Your task to perform on an android device: turn off smart reply in the gmail app Image 0: 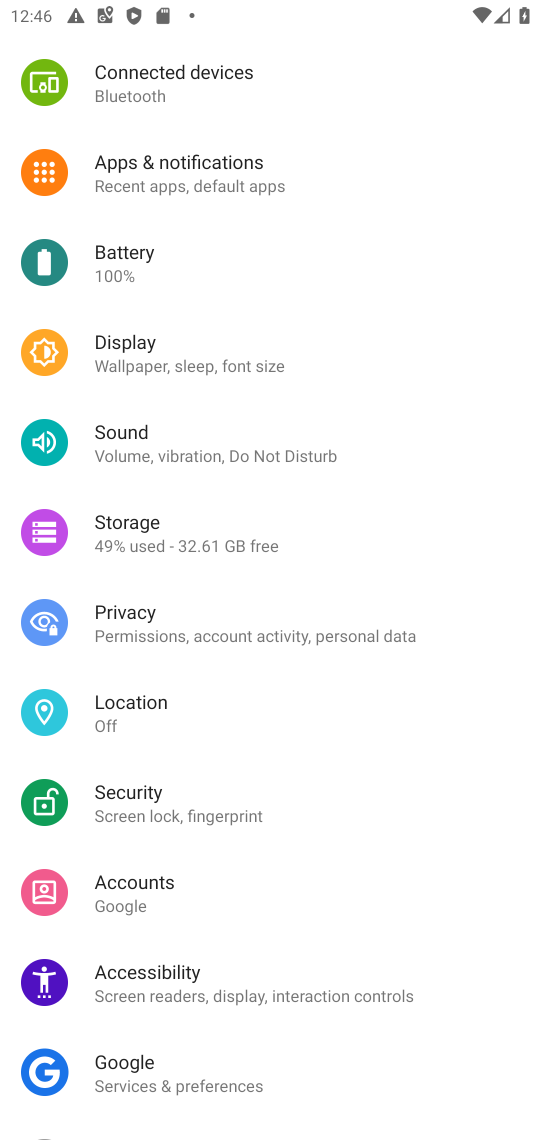
Step 0: press home button
Your task to perform on an android device: turn off smart reply in the gmail app Image 1: 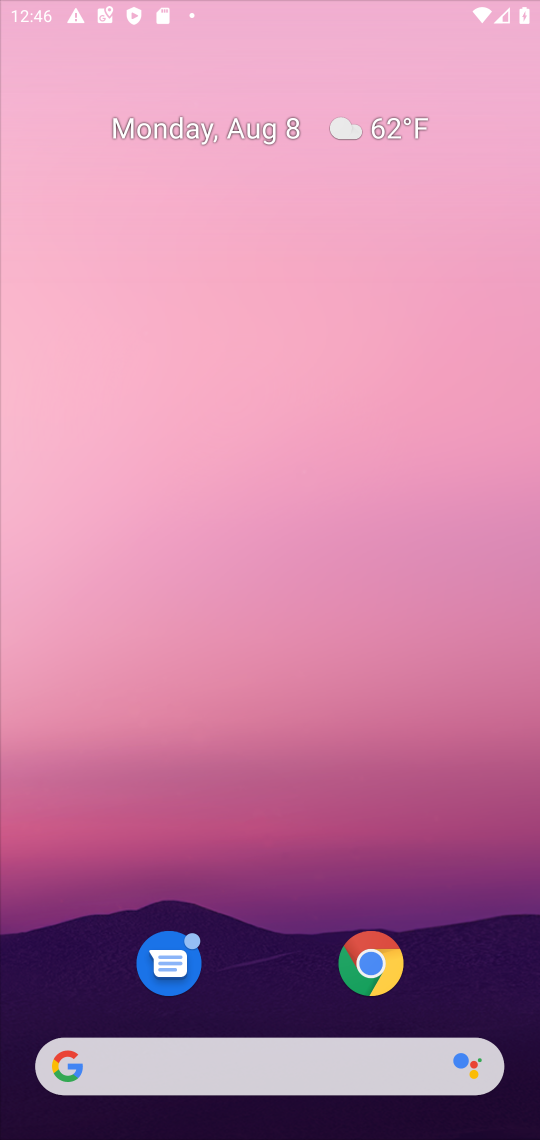
Step 1: drag from (525, 1001) to (269, 48)
Your task to perform on an android device: turn off smart reply in the gmail app Image 2: 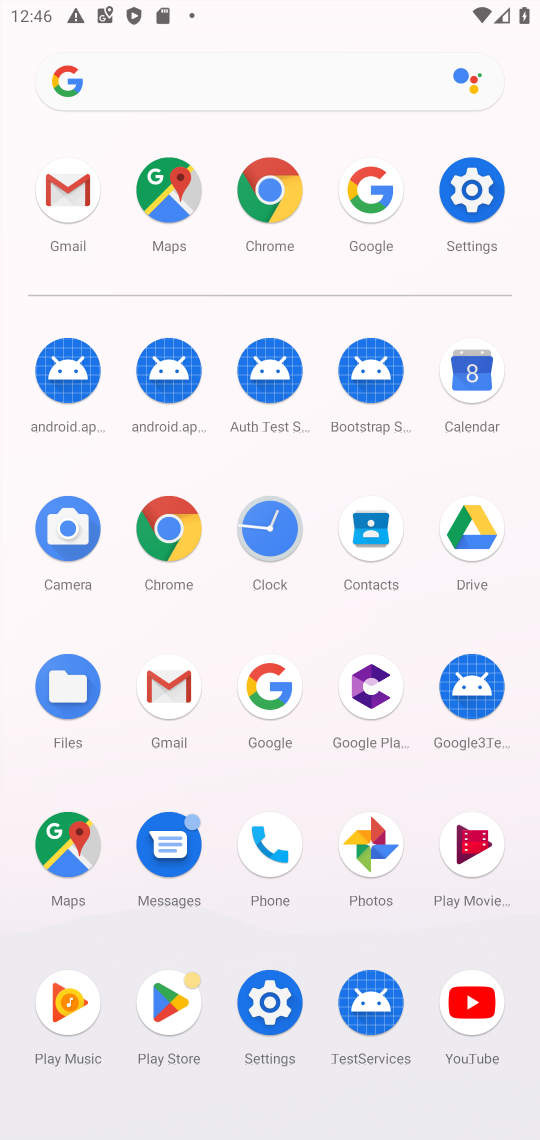
Step 2: click (179, 713)
Your task to perform on an android device: turn off smart reply in the gmail app Image 3: 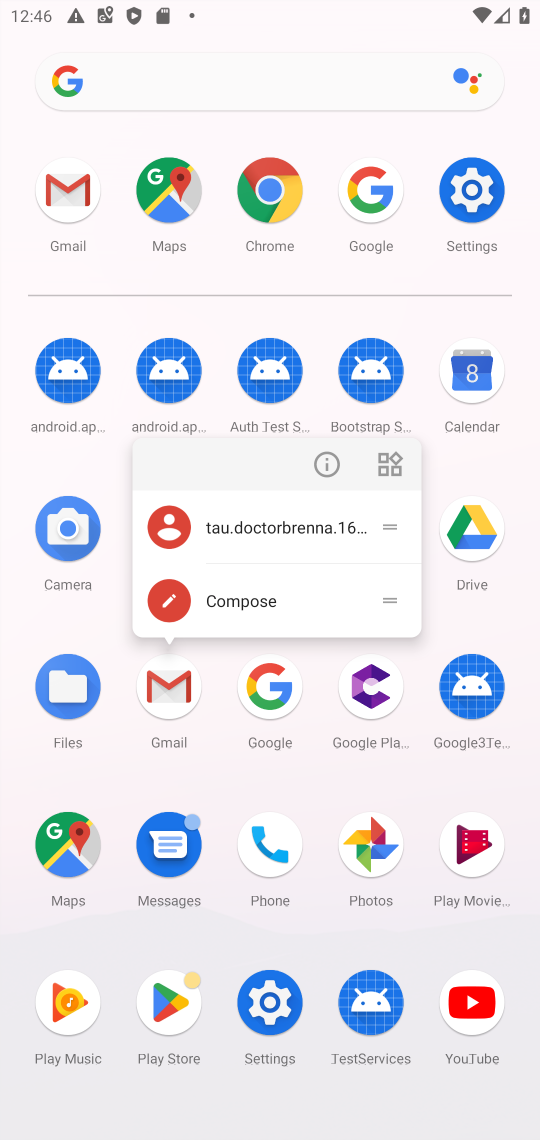
Step 3: click (179, 713)
Your task to perform on an android device: turn off smart reply in the gmail app Image 4: 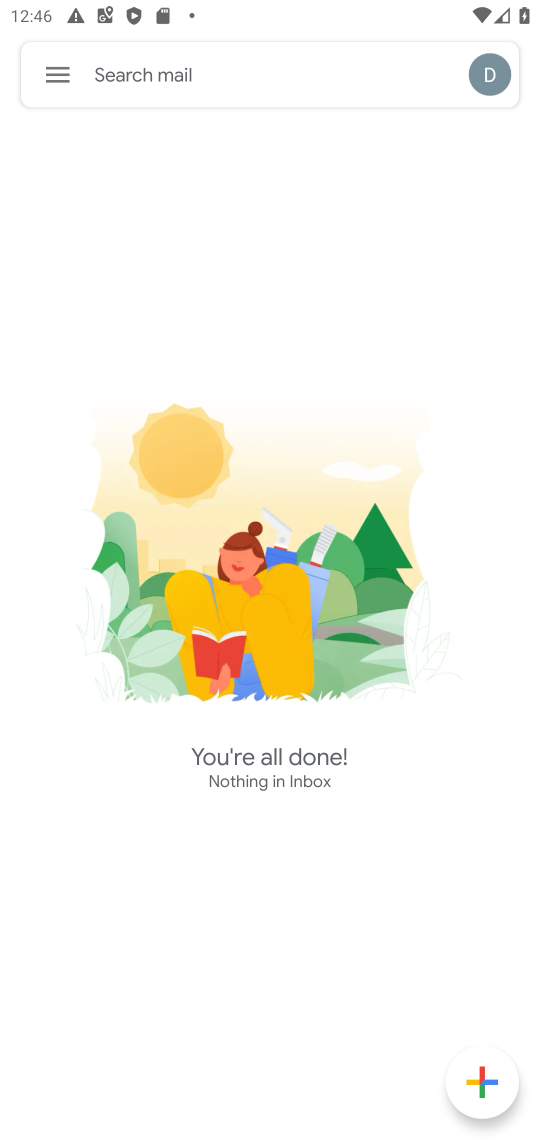
Step 4: click (58, 78)
Your task to perform on an android device: turn off smart reply in the gmail app Image 5: 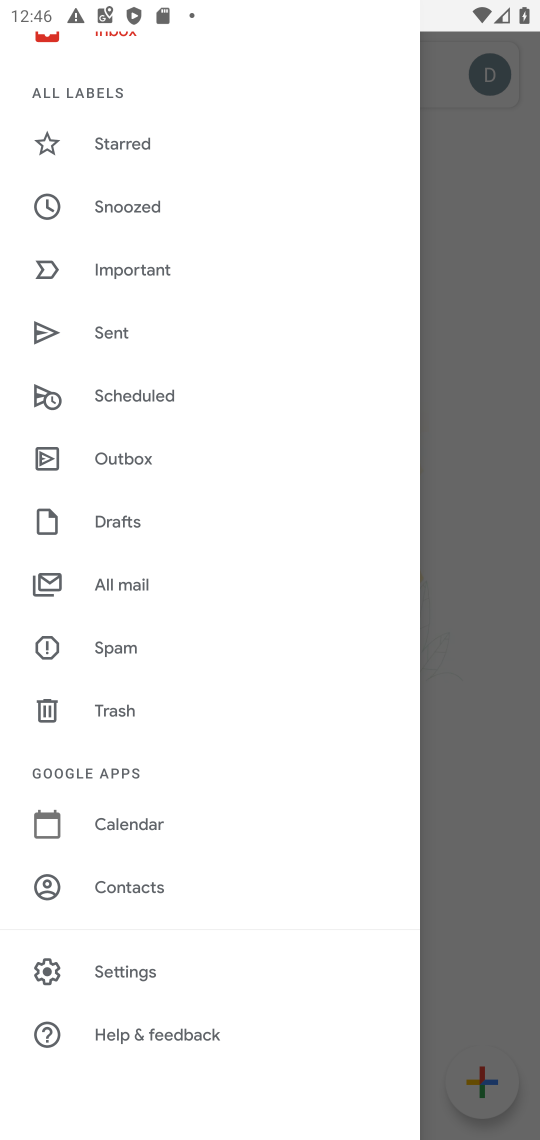
Step 5: click (103, 962)
Your task to perform on an android device: turn off smart reply in the gmail app Image 6: 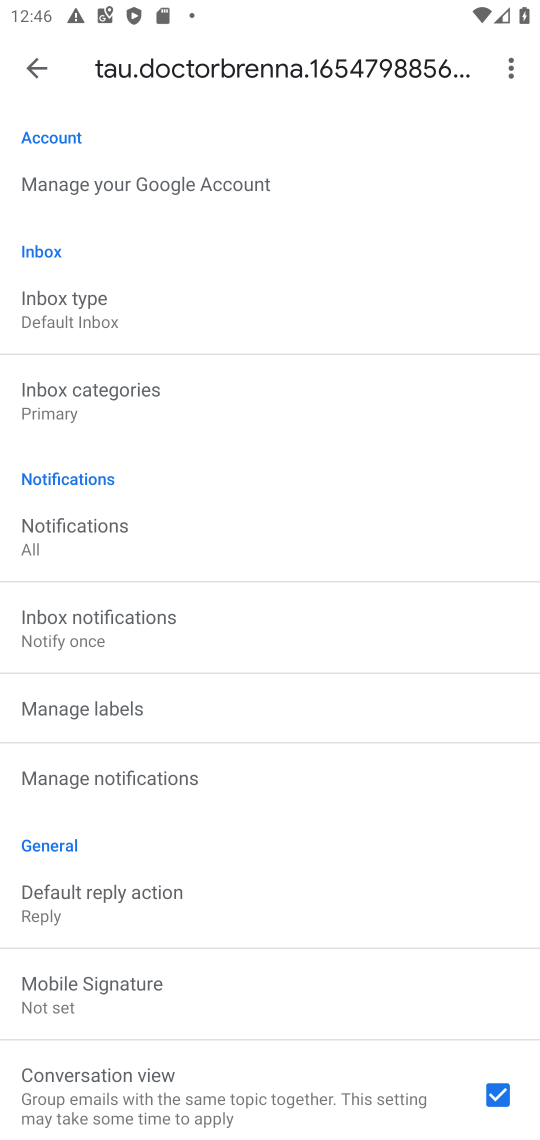
Step 6: click (318, 179)
Your task to perform on an android device: turn off smart reply in the gmail app Image 7: 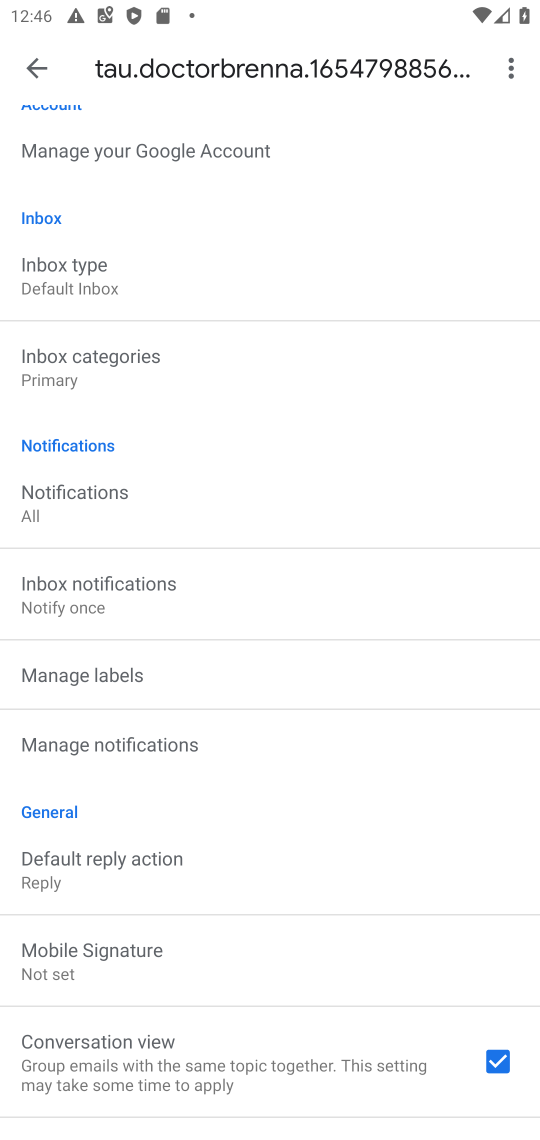
Step 7: drag from (273, 562) to (258, 252)
Your task to perform on an android device: turn off smart reply in the gmail app Image 8: 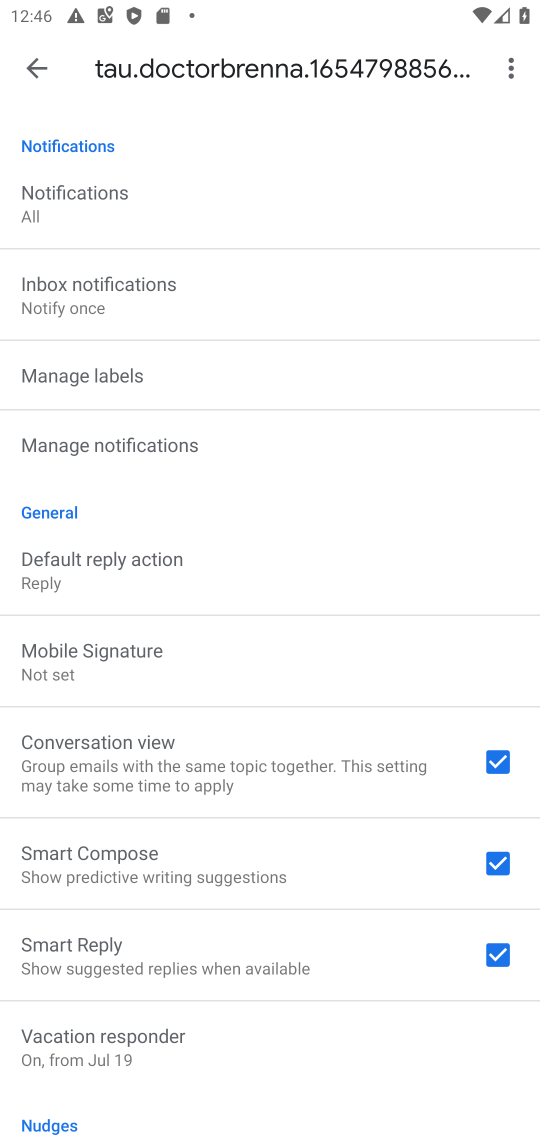
Step 8: click (302, 933)
Your task to perform on an android device: turn off smart reply in the gmail app Image 9: 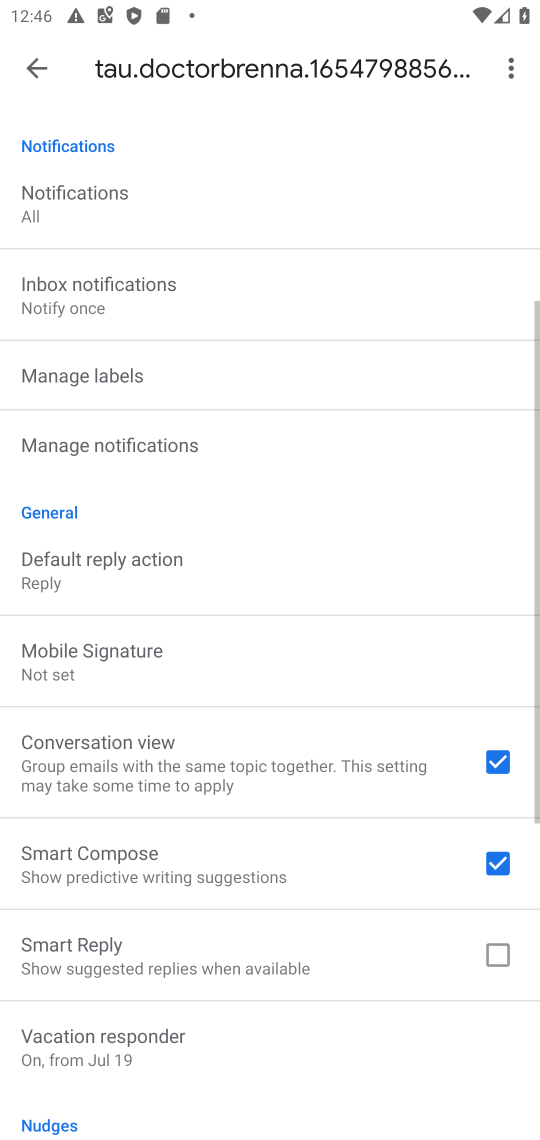
Step 9: task complete